Your task to perform on an android device: see sites visited before in the chrome app Image 0: 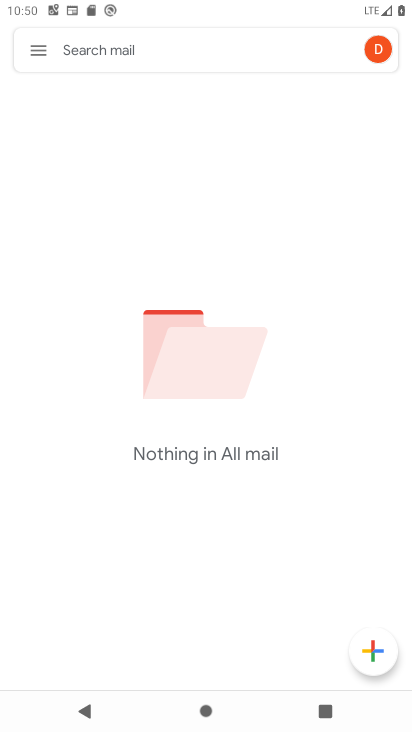
Step 0: press home button
Your task to perform on an android device: see sites visited before in the chrome app Image 1: 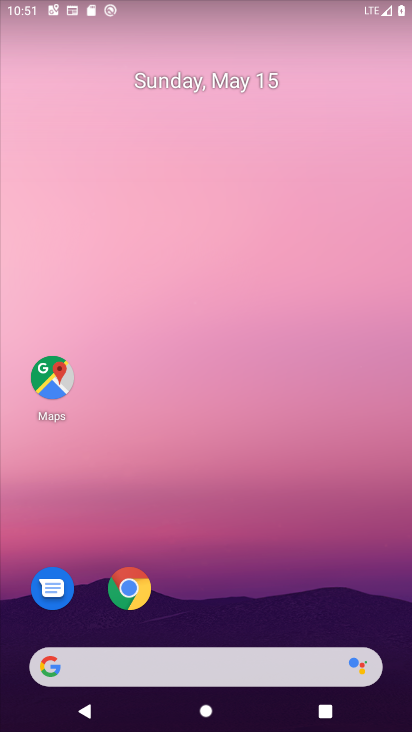
Step 1: click (123, 603)
Your task to perform on an android device: see sites visited before in the chrome app Image 2: 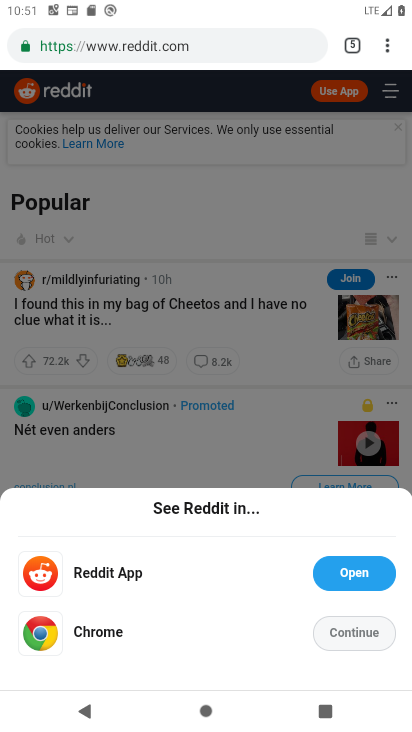
Step 2: click (390, 42)
Your task to perform on an android device: see sites visited before in the chrome app Image 3: 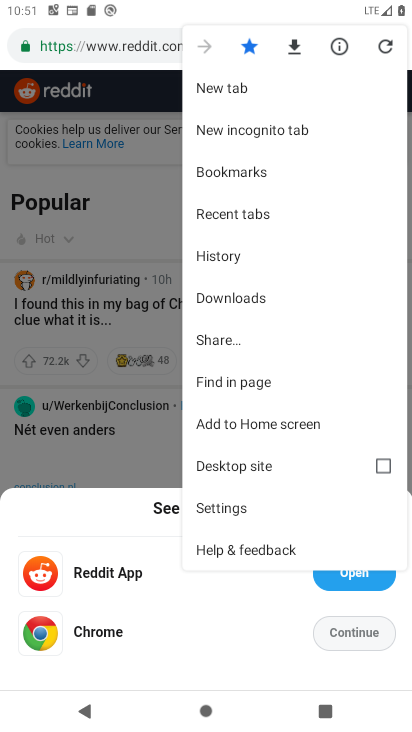
Step 3: click (233, 257)
Your task to perform on an android device: see sites visited before in the chrome app Image 4: 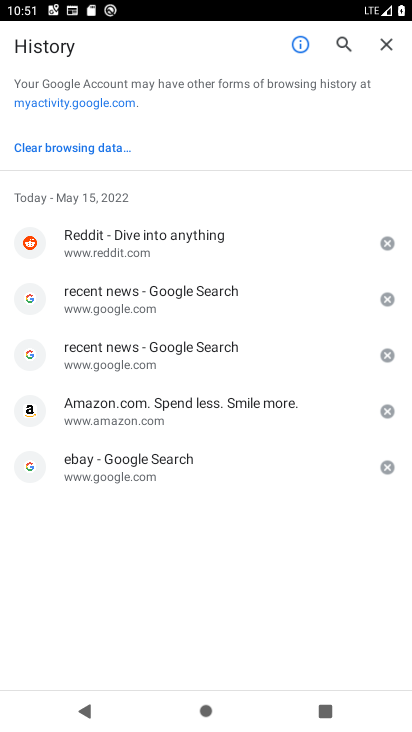
Step 4: task complete